Your task to perform on an android device: Open the calendar app, open the side menu, and click the "Day" option Image 0: 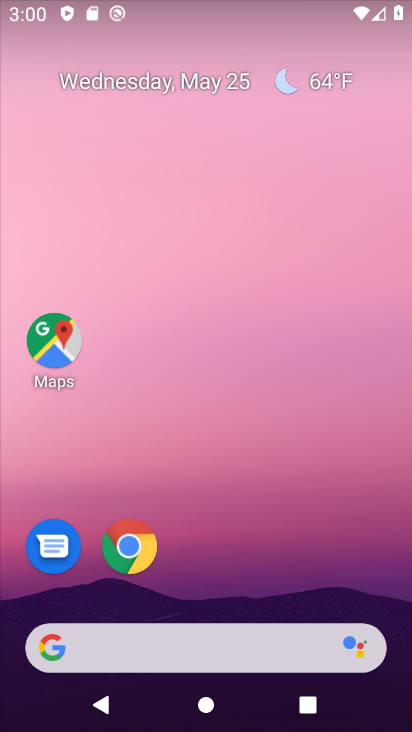
Step 0: drag from (247, 568) to (184, 177)
Your task to perform on an android device: Open the calendar app, open the side menu, and click the "Day" option Image 1: 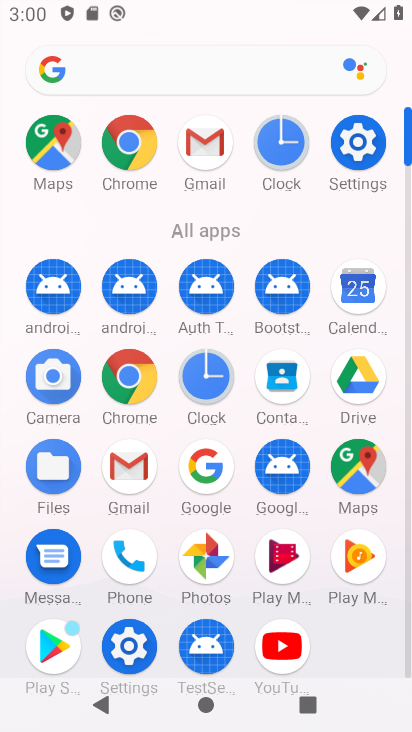
Step 1: click (366, 304)
Your task to perform on an android device: Open the calendar app, open the side menu, and click the "Day" option Image 2: 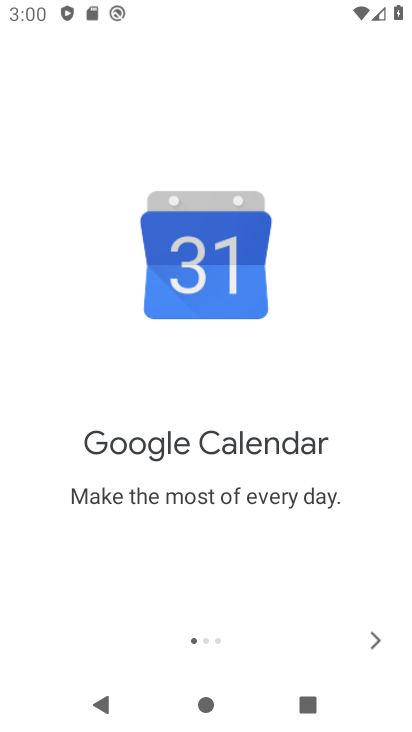
Step 2: click (362, 634)
Your task to perform on an android device: Open the calendar app, open the side menu, and click the "Day" option Image 3: 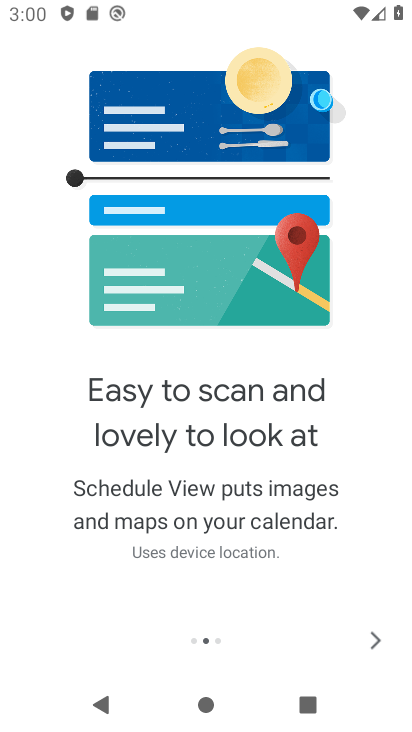
Step 3: click (362, 634)
Your task to perform on an android device: Open the calendar app, open the side menu, and click the "Day" option Image 4: 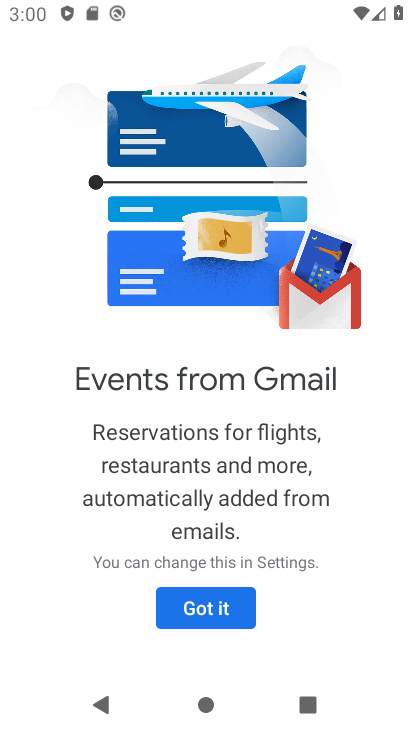
Step 4: click (228, 602)
Your task to perform on an android device: Open the calendar app, open the side menu, and click the "Day" option Image 5: 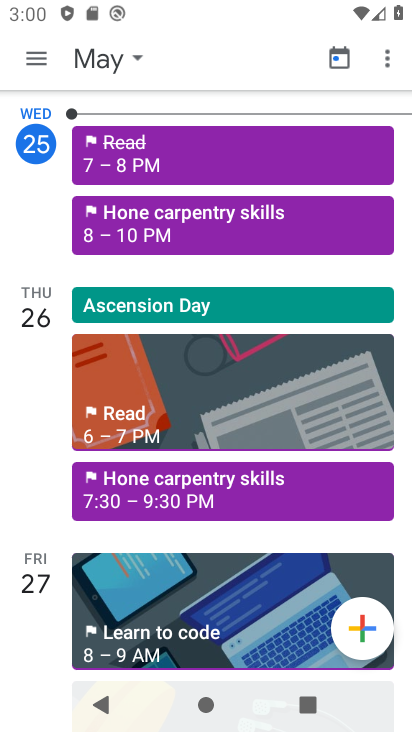
Step 5: click (38, 56)
Your task to perform on an android device: Open the calendar app, open the side menu, and click the "Day" option Image 6: 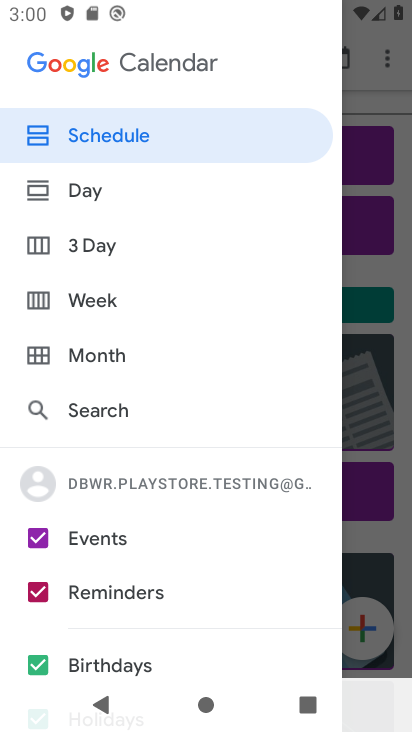
Step 6: click (42, 189)
Your task to perform on an android device: Open the calendar app, open the side menu, and click the "Day" option Image 7: 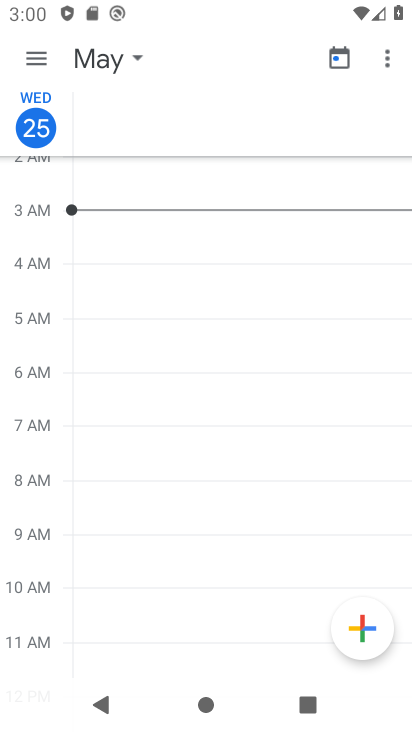
Step 7: task complete